Your task to perform on an android device: Add usb-b to the cart on amazon.com Image 0: 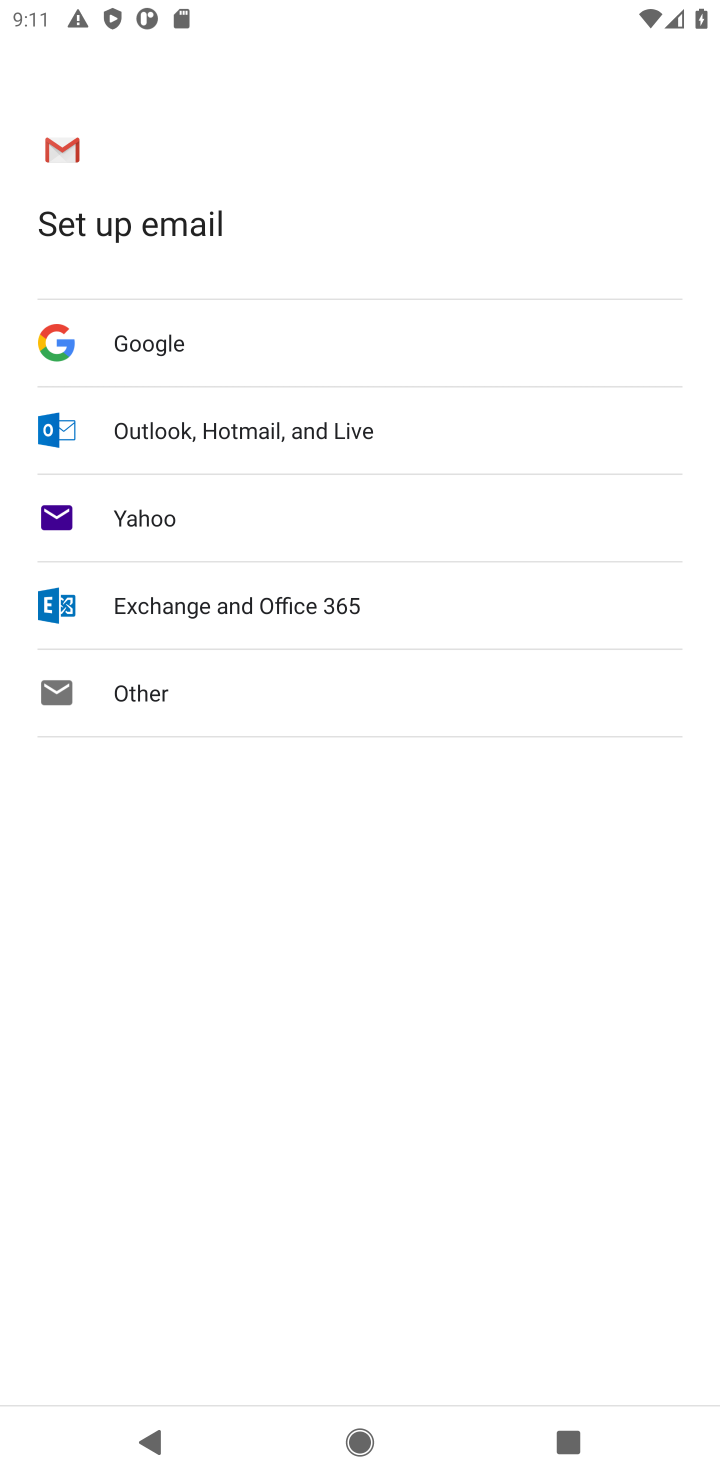
Step 0: press home button
Your task to perform on an android device: Add usb-b to the cart on amazon.com Image 1: 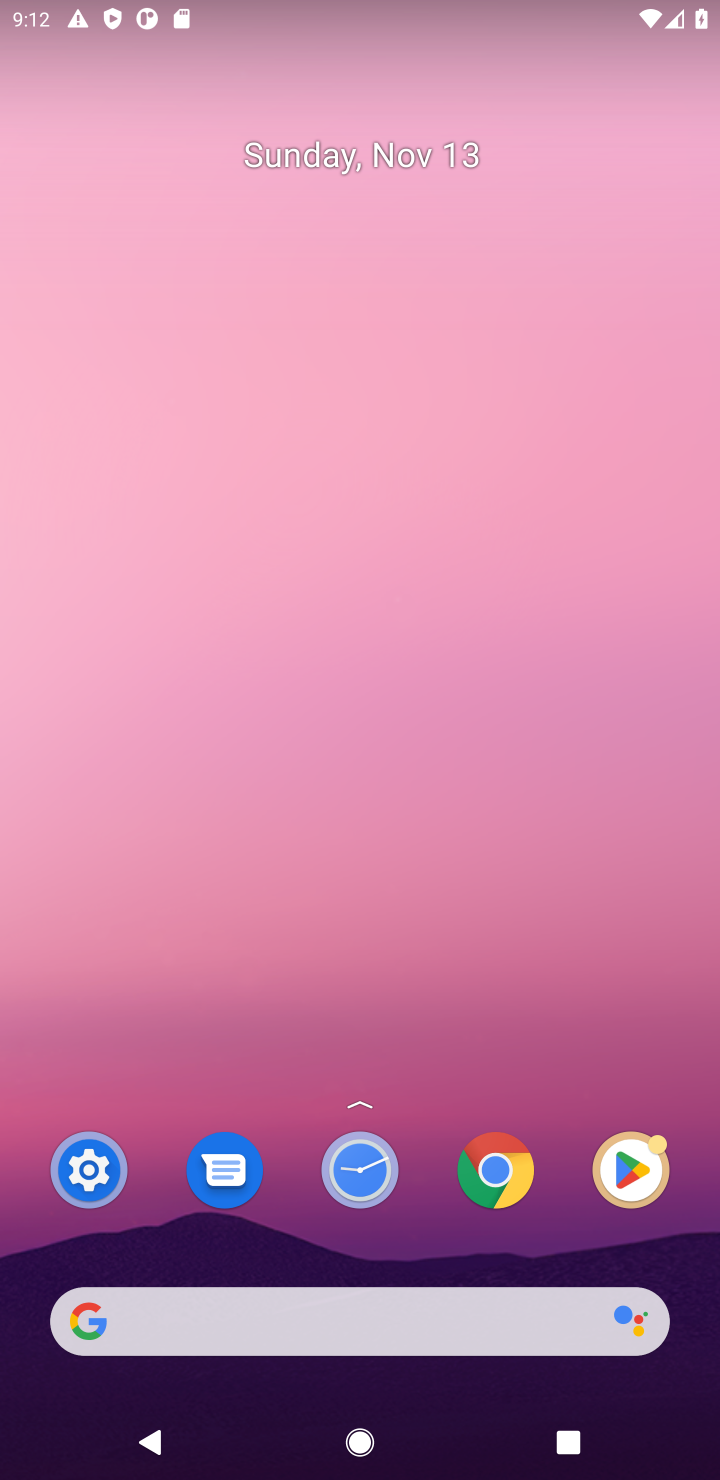
Step 1: click (196, 1319)
Your task to perform on an android device: Add usb-b to the cart on amazon.com Image 2: 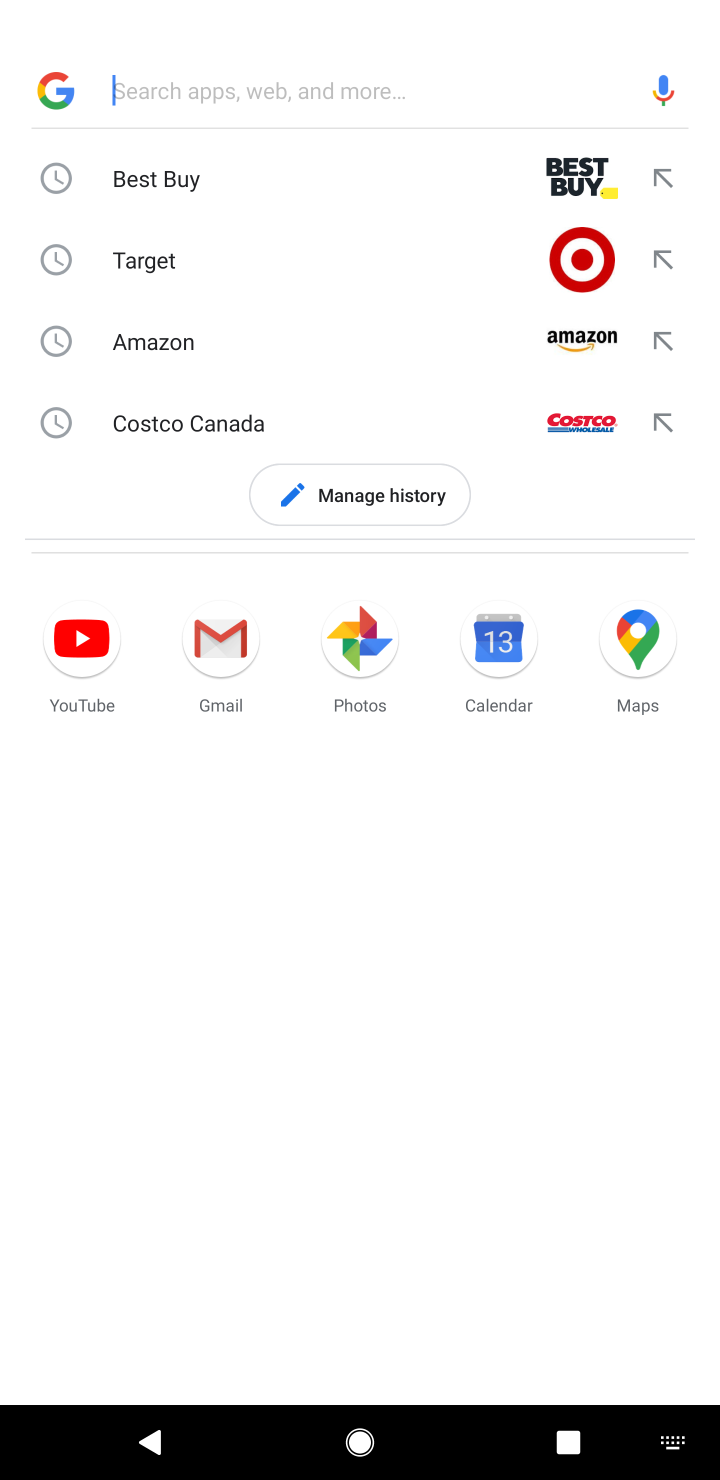
Step 2: click (206, 358)
Your task to perform on an android device: Add usb-b to the cart on amazon.com Image 3: 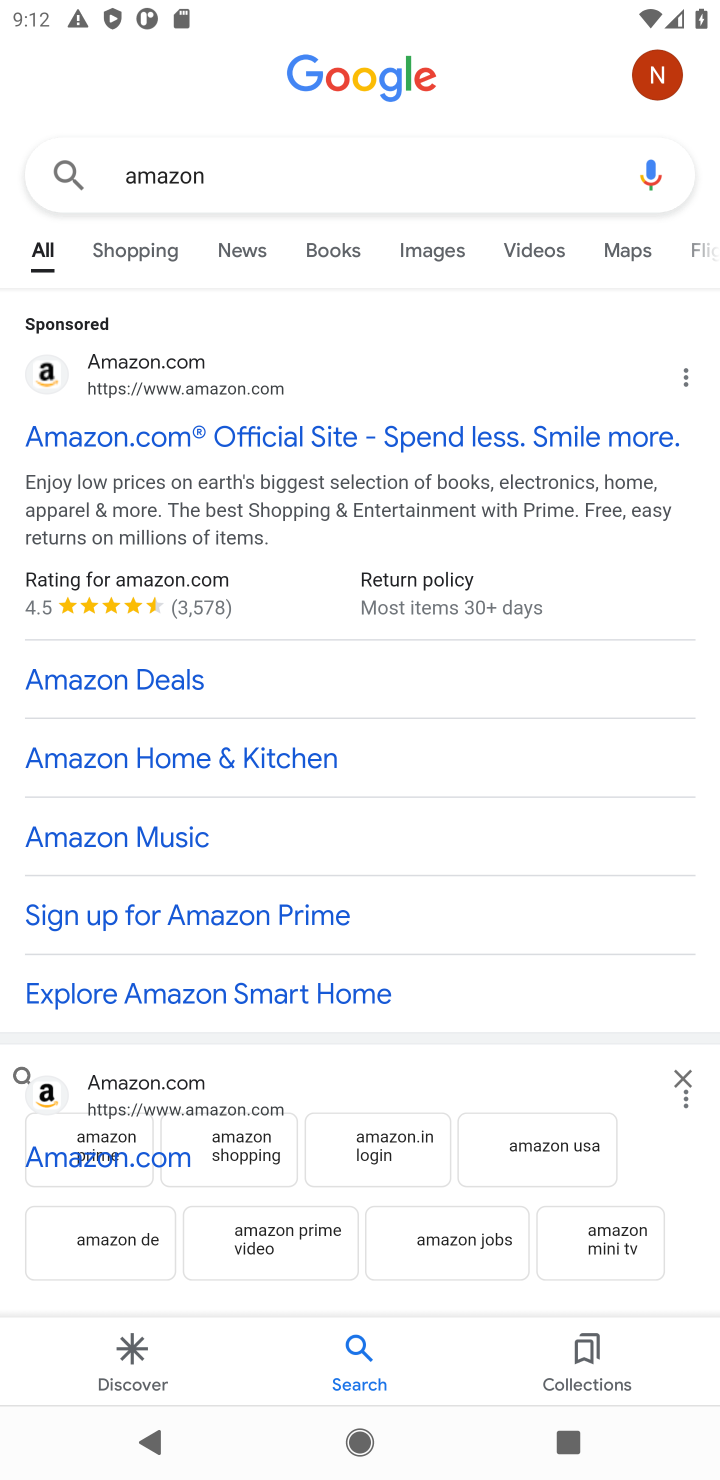
Step 3: click (105, 424)
Your task to perform on an android device: Add usb-b to the cart on amazon.com Image 4: 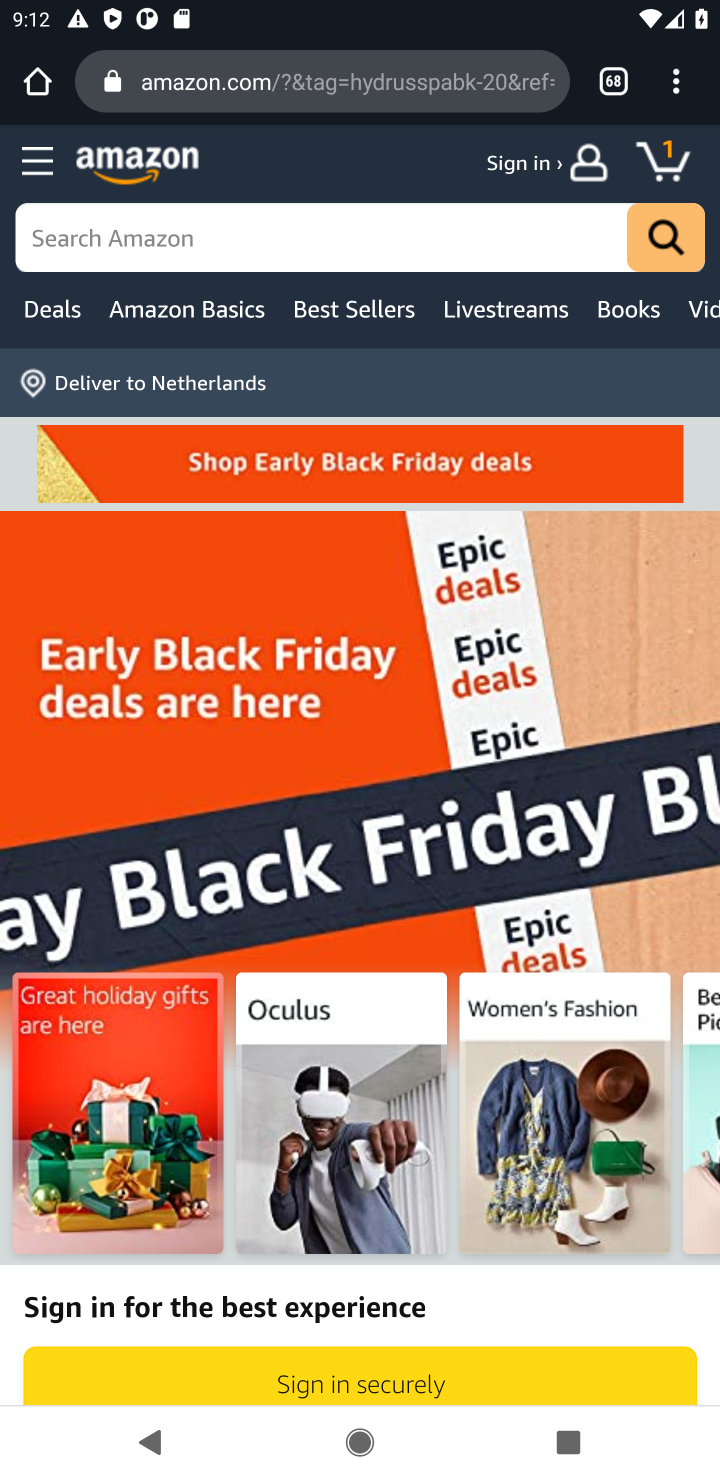
Step 4: task complete